Your task to perform on an android device: Go to Google maps Image 0: 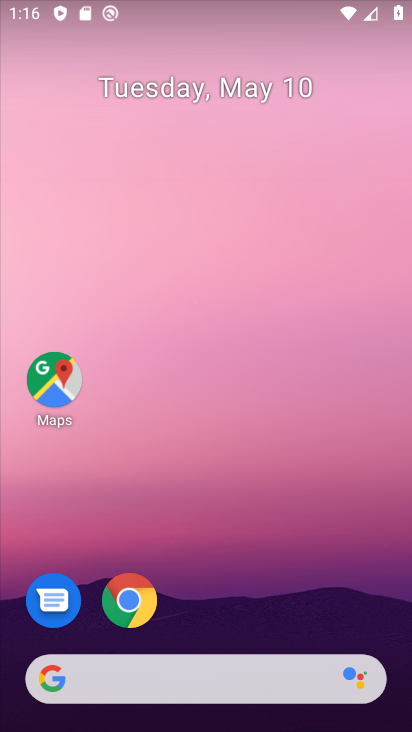
Step 0: drag from (188, 599) to (195, 173)
Your task to perform on an android device: Go to Google maps Image 1: 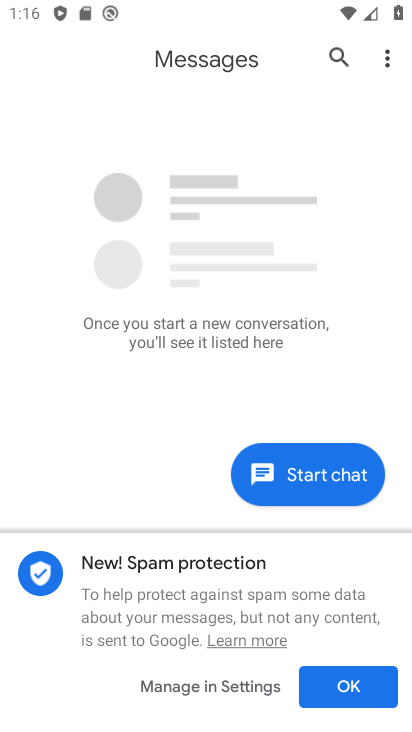
Step 1: task complete